Your task to perform on an android device: turn on airplane mode Image 0: 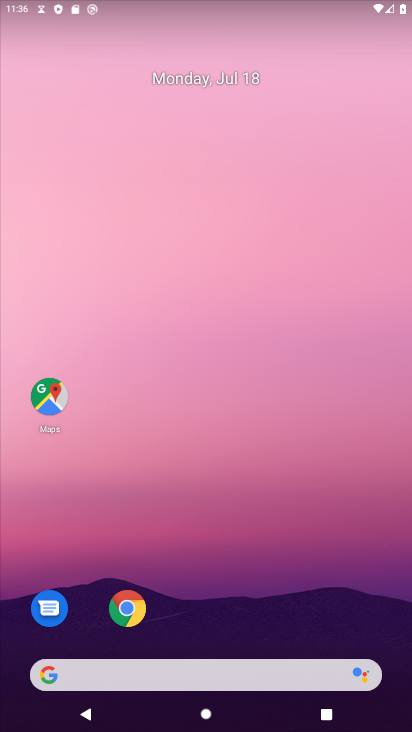
Step 0: drag from (230, 8) to (239, 723)
Your task to perform on an android device: turn on airplane mode Image 1: 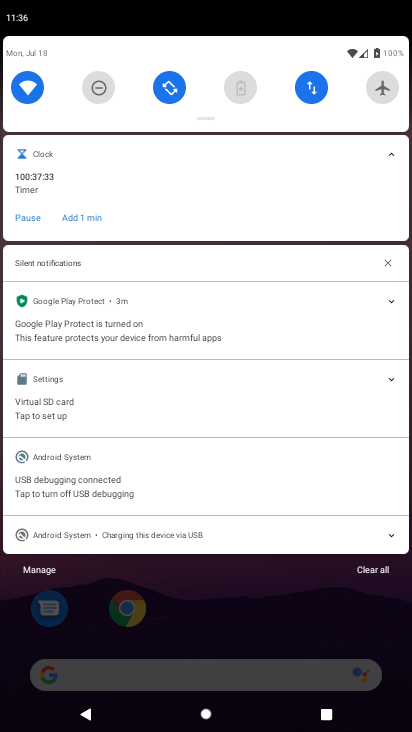
Step 1: click (375, 89)
Your task to perform on an android device: turn on airplane mode Image 2: 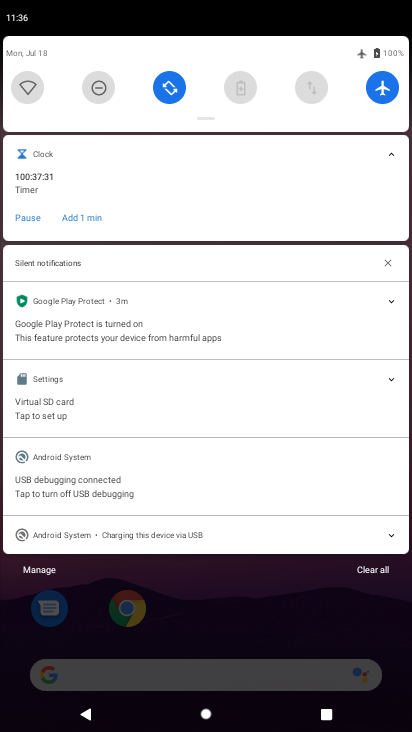
Step 2: task complete